Your task to perform on an android device: empty trash in the gmail app Image 0: 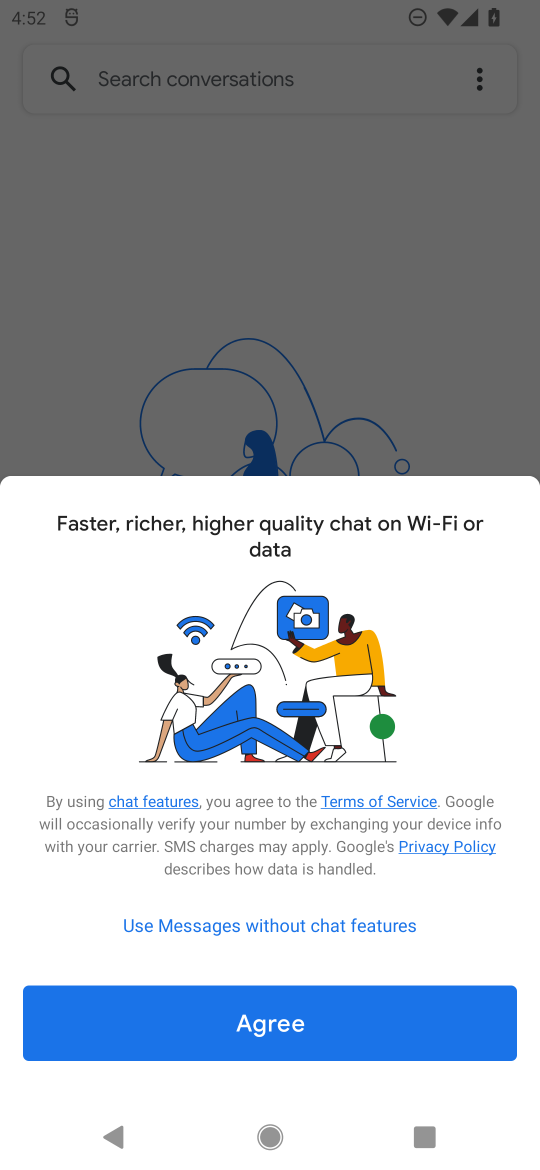
Step 0: press home button
Your task to perform on an android device: empty trash in the gmail app Image 1: 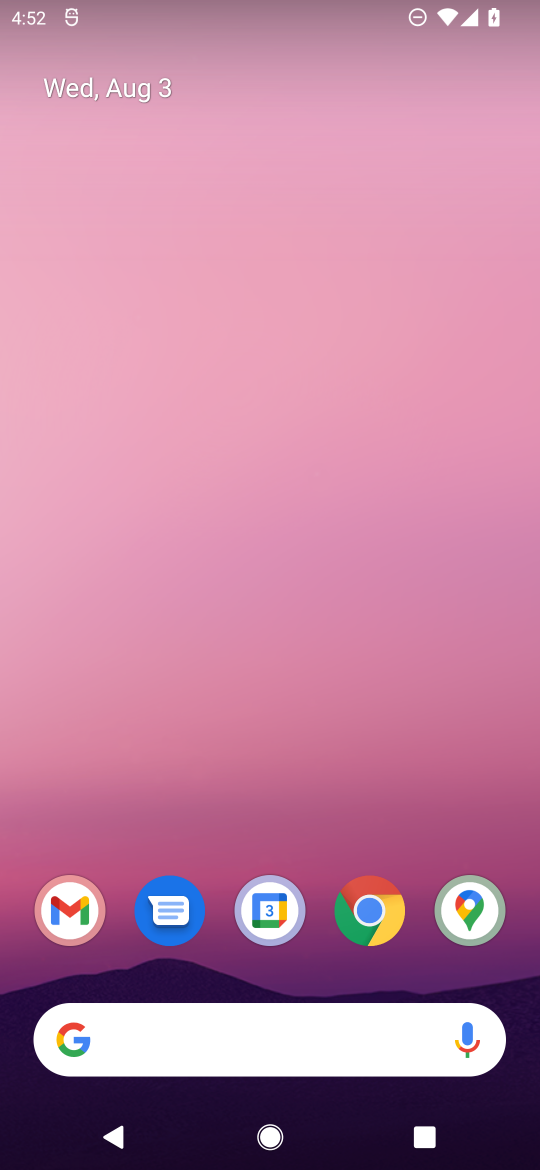
Step 1: click (67, 900)
Your task to perform on an android device: empty trash in the gmail app Image 2: 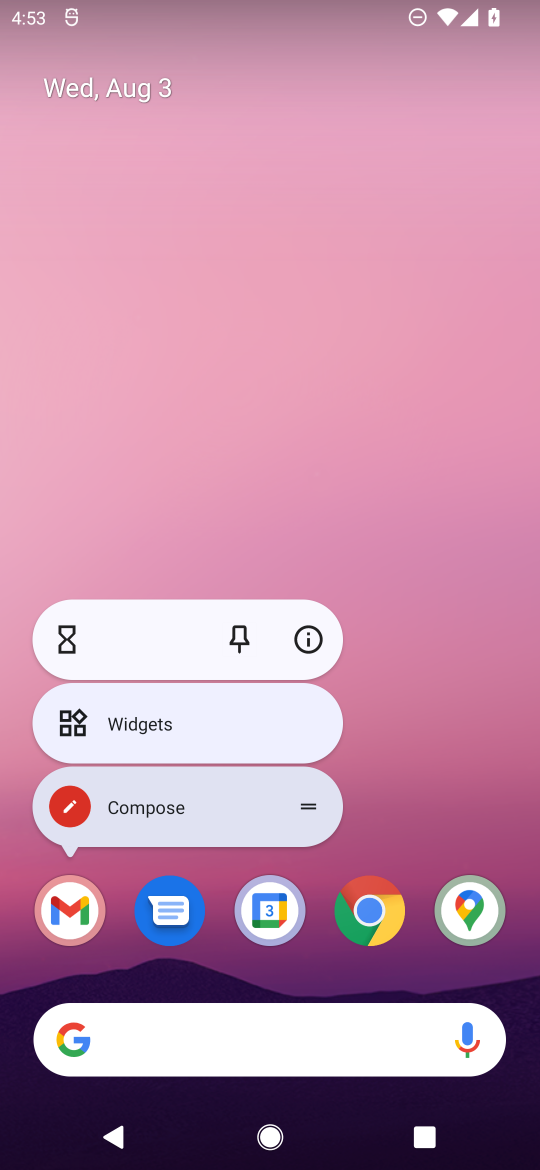
Step 2: click (62, 894)
Your task to perform on an android device: empty trash in the gmail app Image 3: 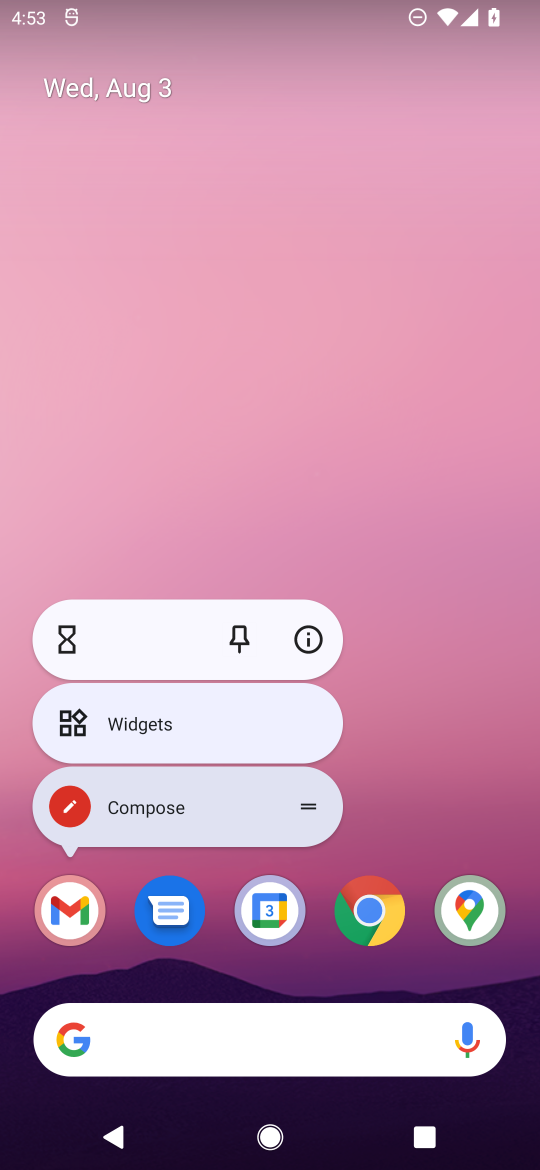
Step 3: click (62, 903)
Your task to perform on an android device: empty trash in the gmail app Image 4: 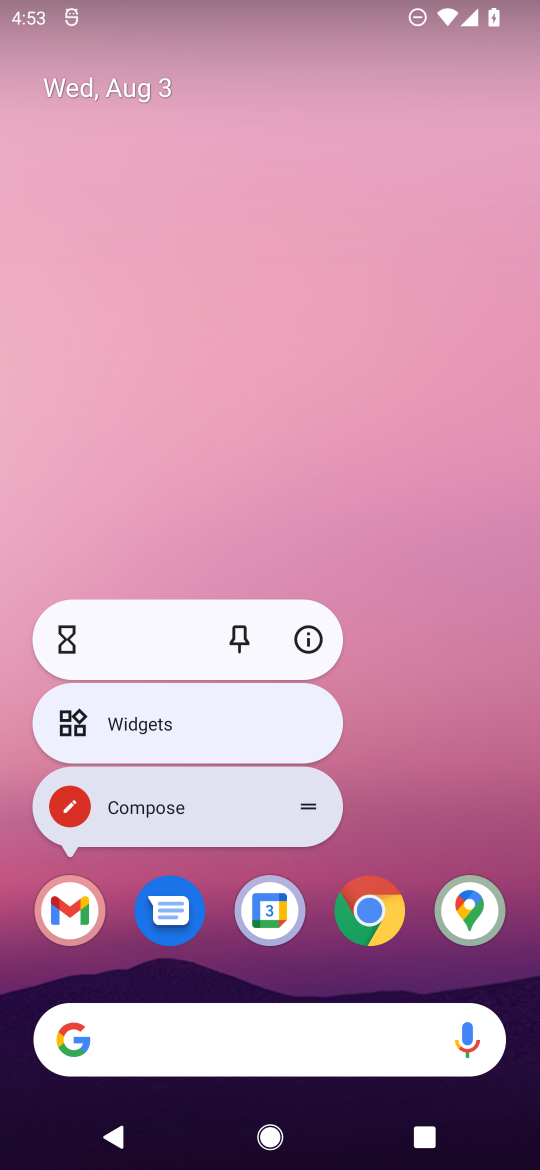
Step 4: click (55, 914)
Your task to perform on an android device: empty trash in the gmail app Image 5: 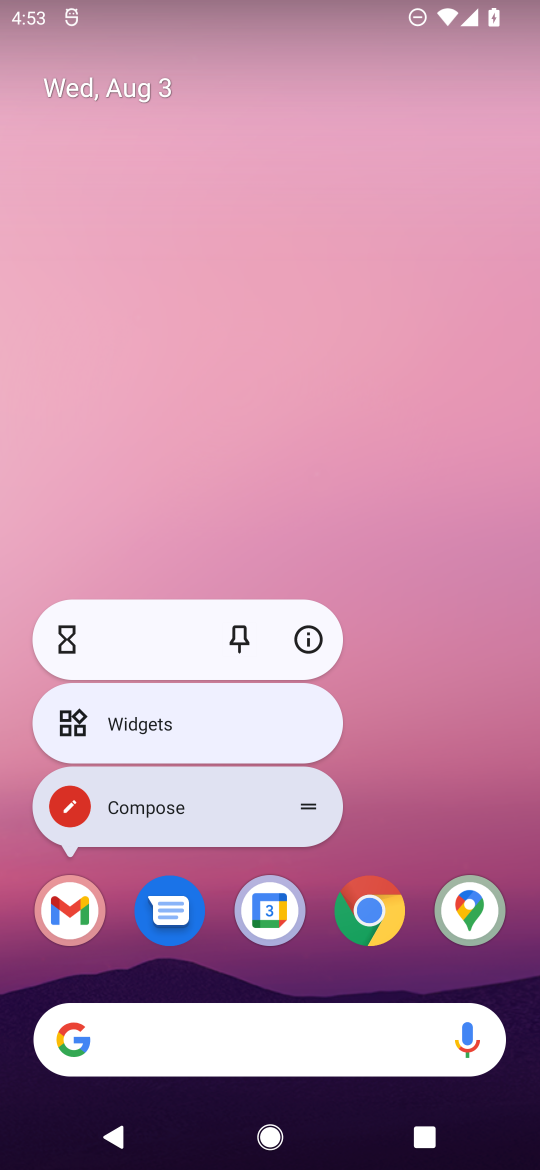
Step 5: click (64, 914)
Your task to perform on an android device: empty trash in the gmail app Image 6: 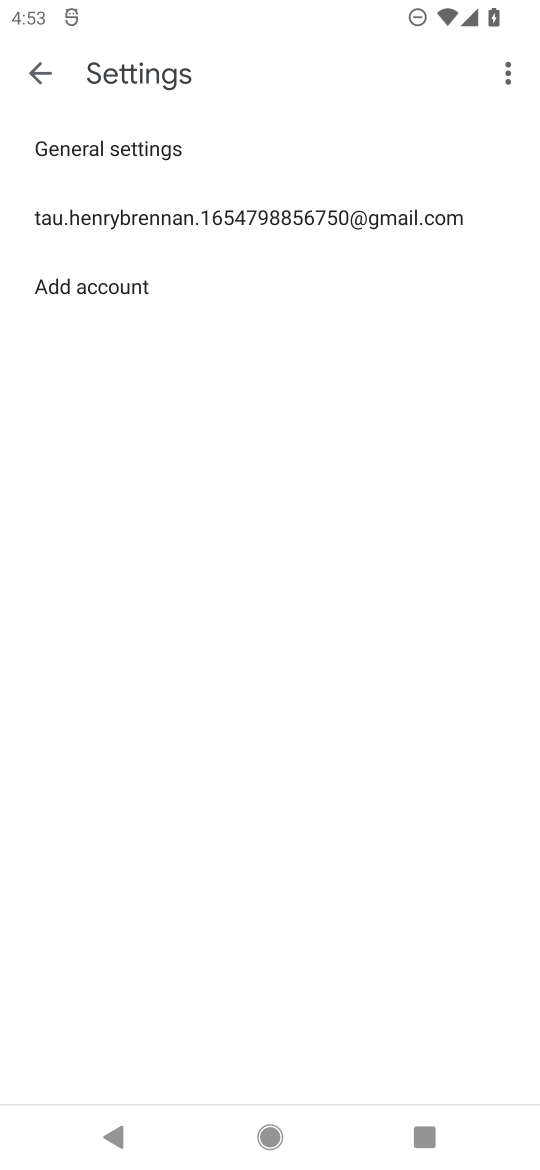
Step 6: task complete